Your task to perform on an android device: visit the assistant section in the google photos Image 0: 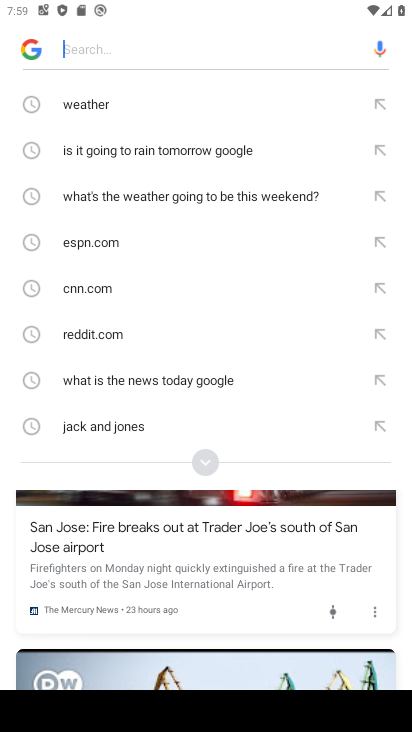
Step 0: press home button
Your task to perform on an android device: visit the assistant section in the google photos Image 1: 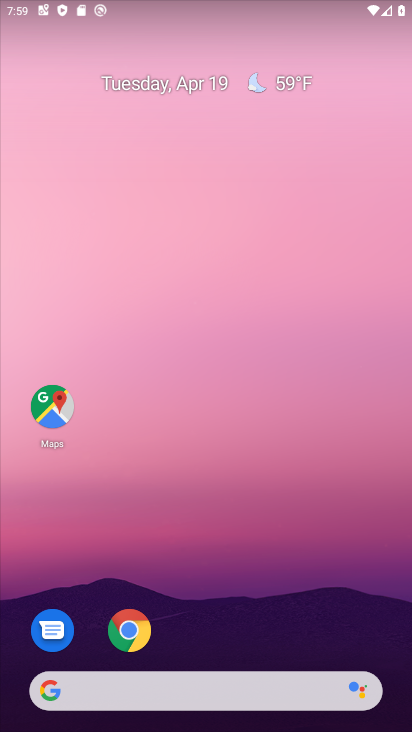
Step 1: drag from (190, 589) to (259, 30)
Your task to perform on an android device: visit the assistant section in the google photos Image 2: 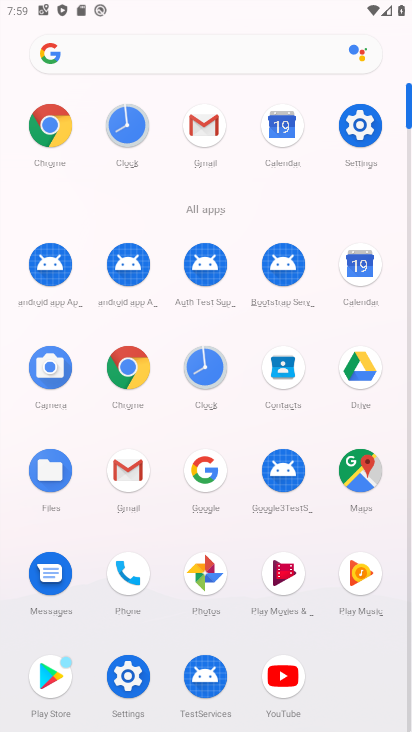
Step 2: click (208, 582)
Your task to perform on an android device: visit the assistant section in the google photos Image 3: 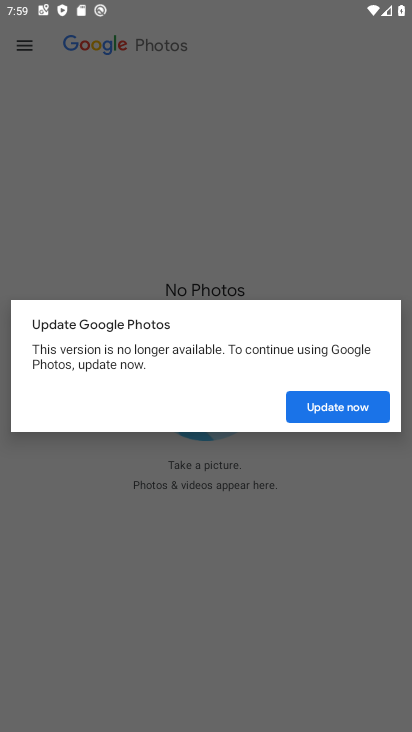
Step 3: click (325, 405)
Your task to perform on an android device: visit the assistant section in the google photos Image 4: 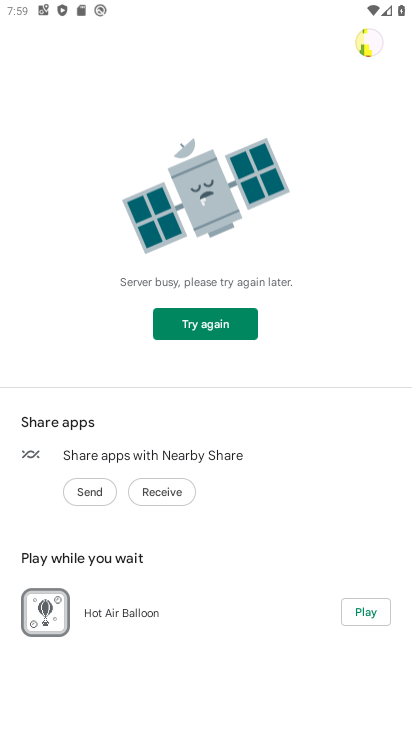
Step 4: click (217, 319)
Your task to perform on an android device: visit the assistant section in the google photos Image 5: 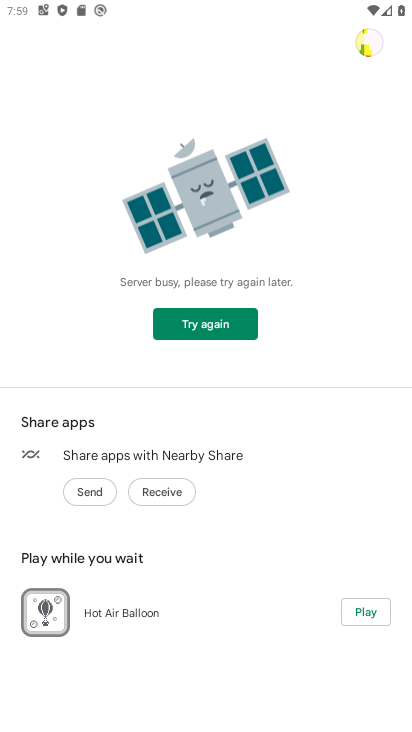
Step 5: click (217, 319)
Your task to perform on an android device: visit the assistant section in the google photos Image 6: 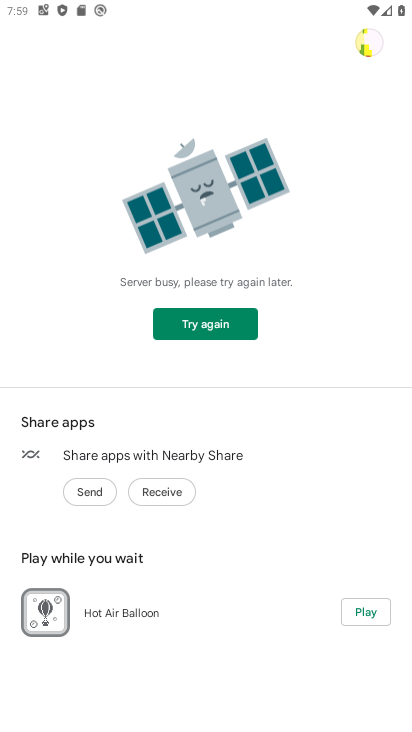
Step 6: task complete